Your task to perform on an android device: check the backup settings in the google photos Image 0: 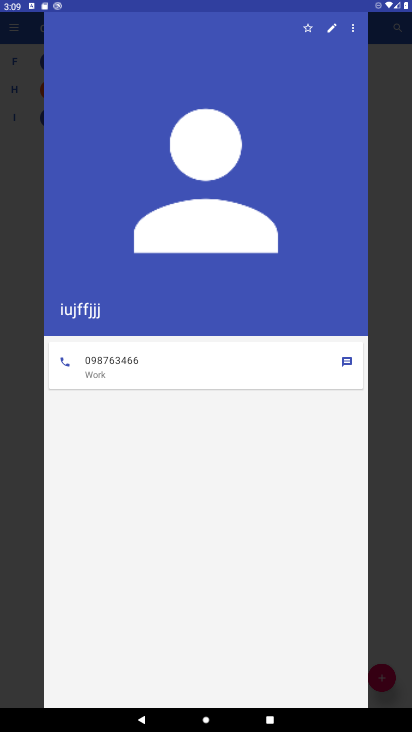
Step 0: press home button
Your task to perform on an android device: check the backup settings in the google photos Image 1: 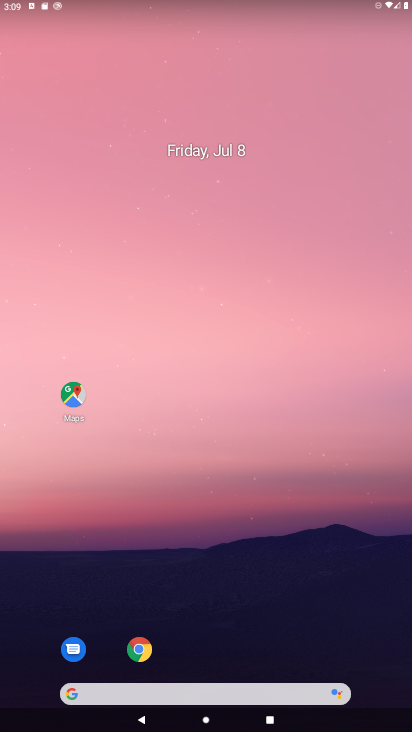
Step 1: drag from (369, 656) to (332, 96)
Your task to perform on an android device: check the backup settings in the google photos Image 2: 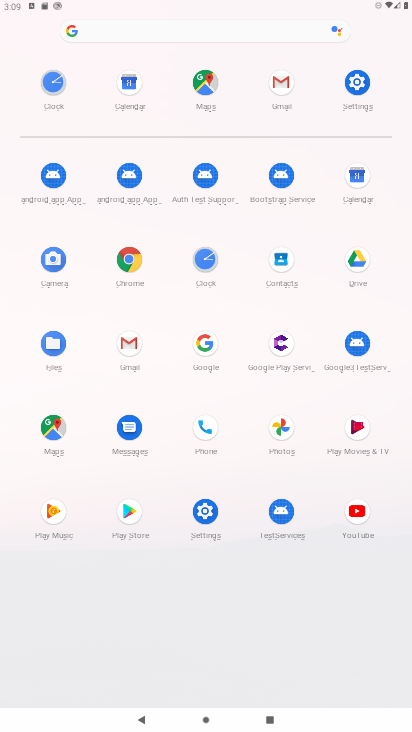
Step 2: click (280, 428)
Your task to perform on an android device: check the backup settings in the google photos Image 3: 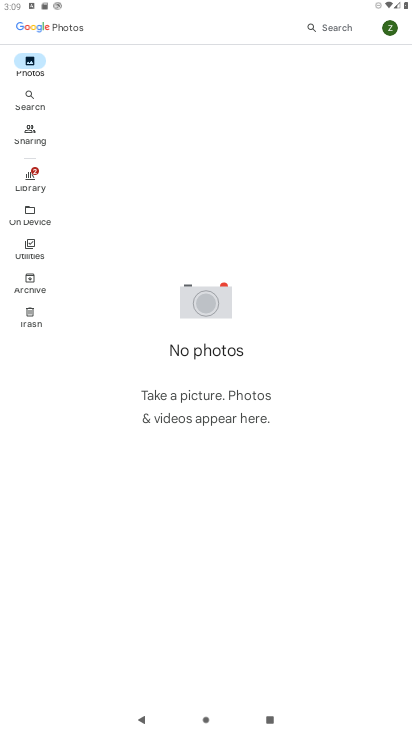
Step 3: click (386, 29)
Your task to perform on an android device: check the backup settings in the google photos Image 4: 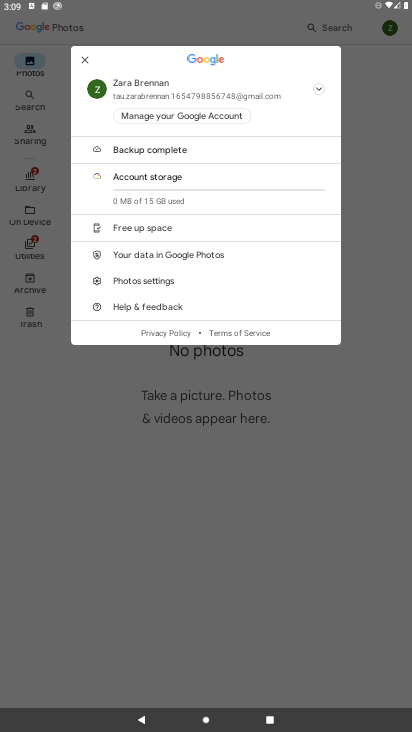
Step 4: click (135, 280)
Your task to perform on an android device: check the backup settings in the google photos Image 5: 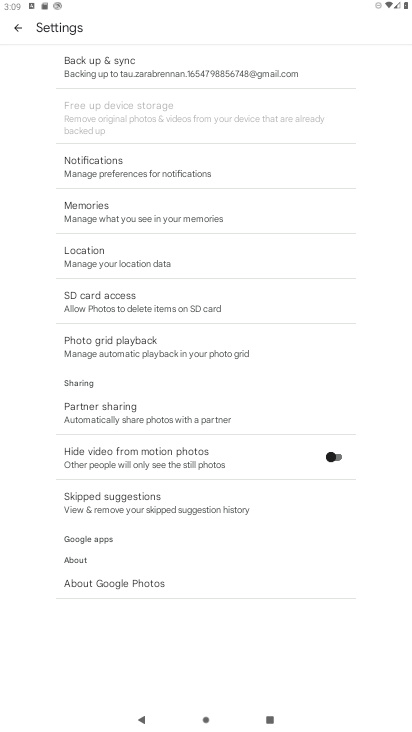
Step 5: click (102, 62)
Your task to perform on an android device: check the backup settings in the google photos Image 6: 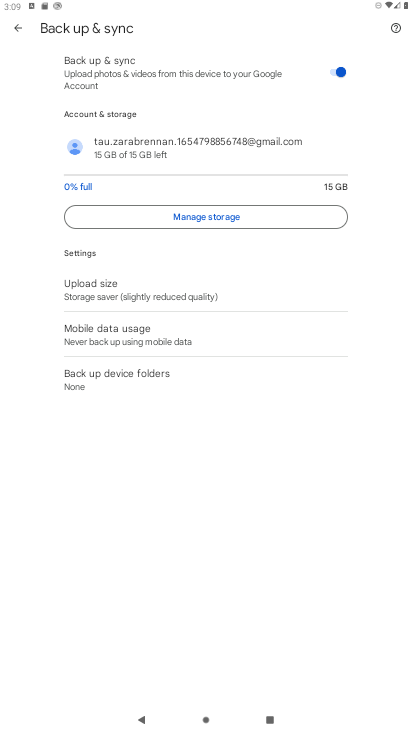
Step 6: task complete